Your task to perform on an android device: turn on airplane mode Image 0: 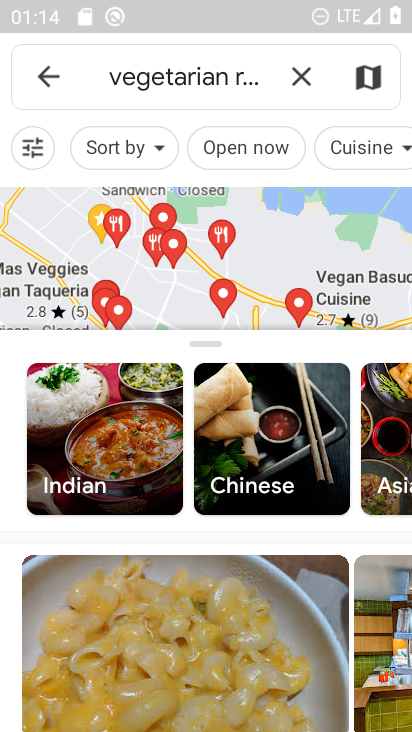
Step 0: press home button
Your task to perform on an android device: turn on airplane mode Image 1: 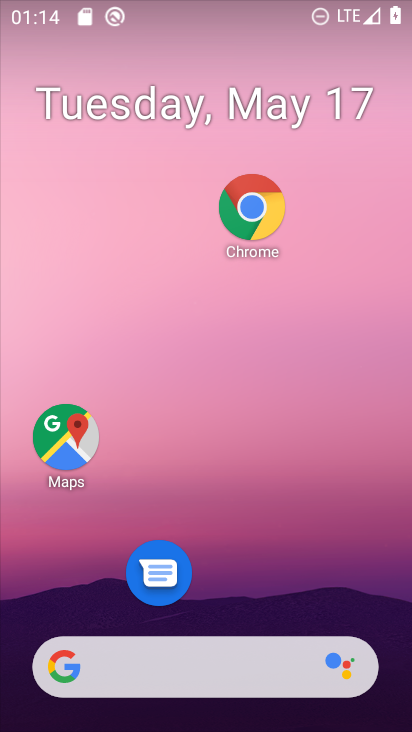
Step 1: drag from (290, 641) to (316, 120)
Your task to perform on an android device: turn on airplane mode Image 2: 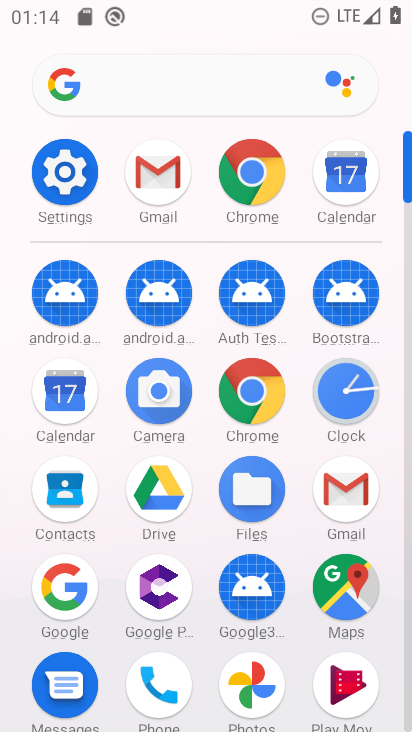
Step 2: click (78, 162)
Your task to perform on an android device: turn on airplane mode Image 3: 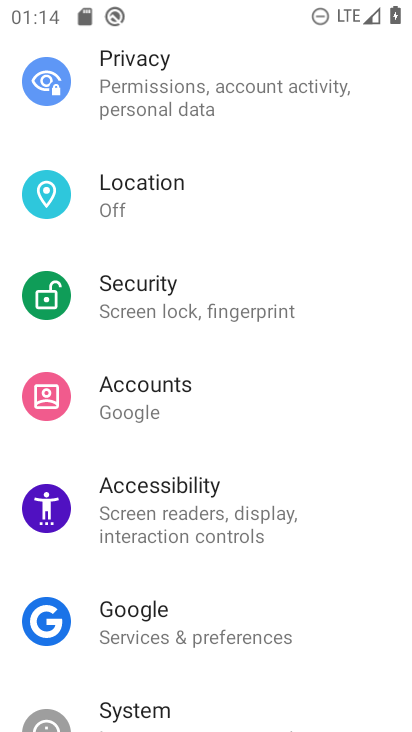
Step 3: drag from (226, 184) to (324, 700)
Your task to perform on an android device: turn on airplane mode Image 4: 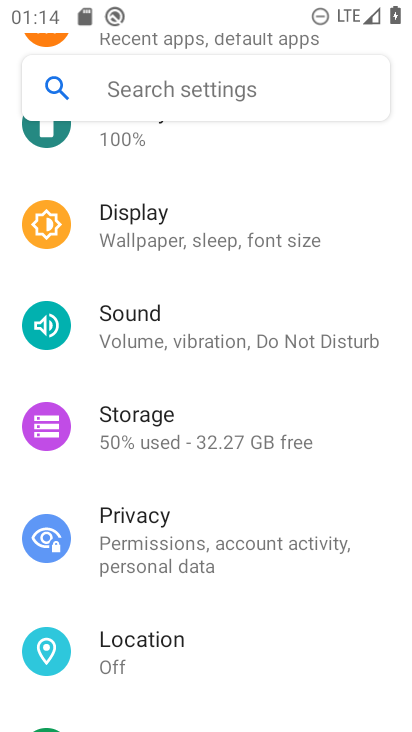
Step 4: drag from (273, 262) to (312, 676)
Your task to perform on an android device: turn on airplane mode Image 5: 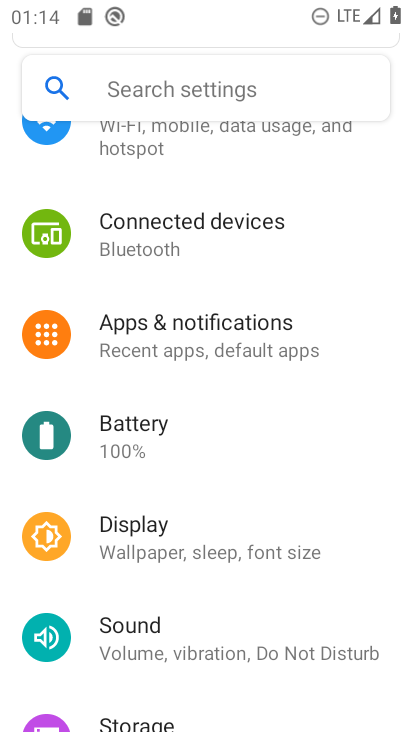
Step 5: drag from (234, 271) to (288, 579)
Your task to perform on an android device: turn on airplane mode Image 6: 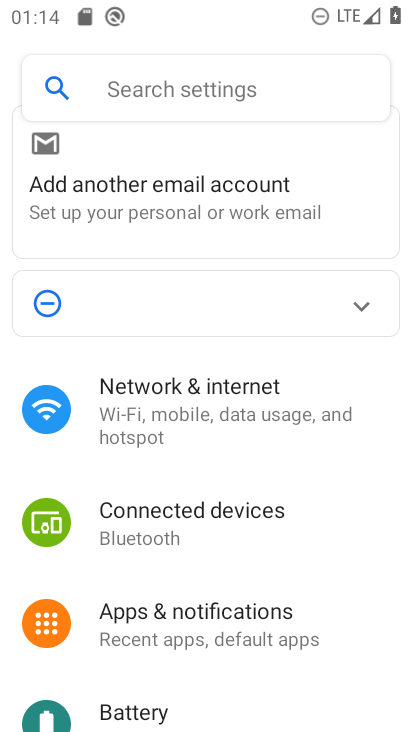
Step 6: click (226, 406)
Your task to perform on an android device: turn on airplane mode Image 7: 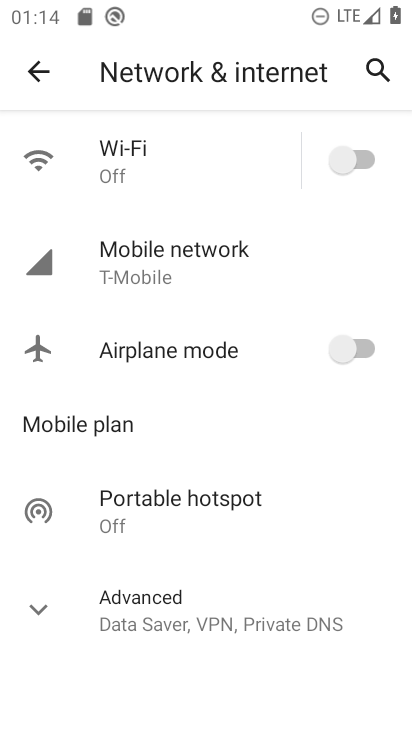
Step 7: click (357, 347)
Your task to perform on an android device: turn on airplane mode Image 8: 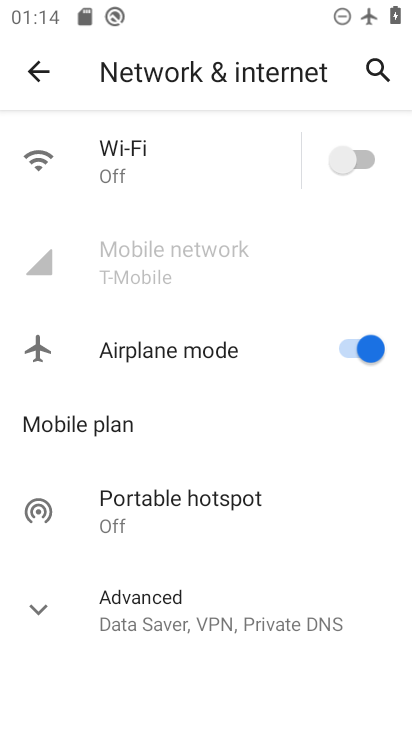
Step 8: task complete